Your task to perform on an android device: Go to Maps Image 0: 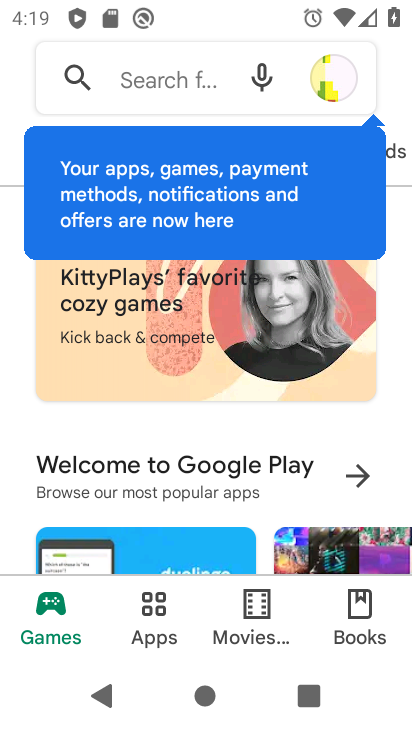
Step 0: press home button
Your task to perform on an android device: Go to Maps Image 1: 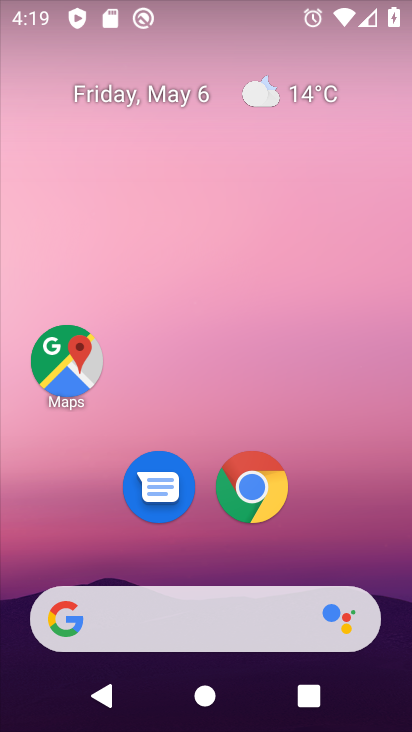
Step 1: drag from (198, 566) to (231, 0)
Your task to perform on an android device: Go to Maps Image 2: 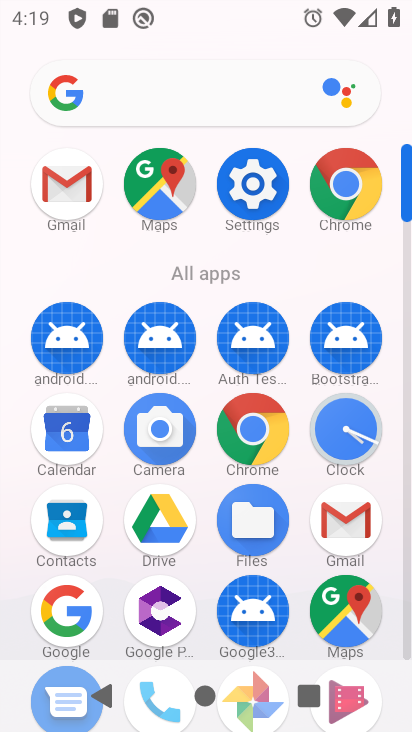
Step 2: click (340, 600)
Your task to perform on an android device: Go to Maps Image 3: 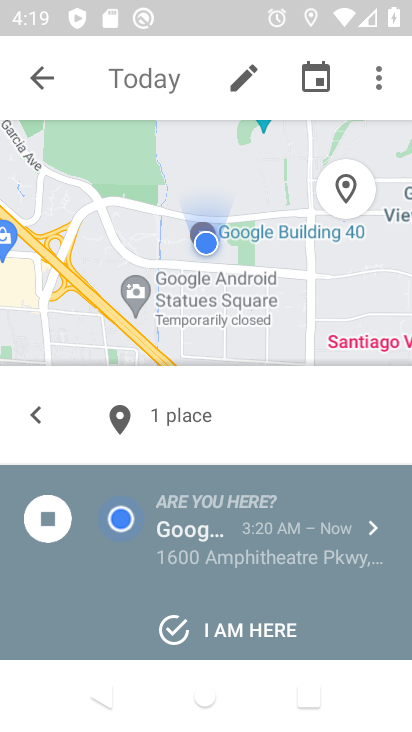
Step 3: click (44, 96)
Your task to perform on an android device: Go to Maps Image 4: 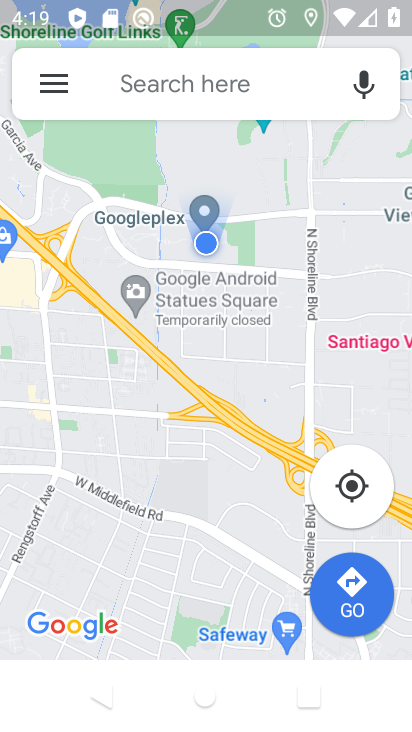
Step 4: task complete